Your task to perform on an android device: toggle wifi Image 0: 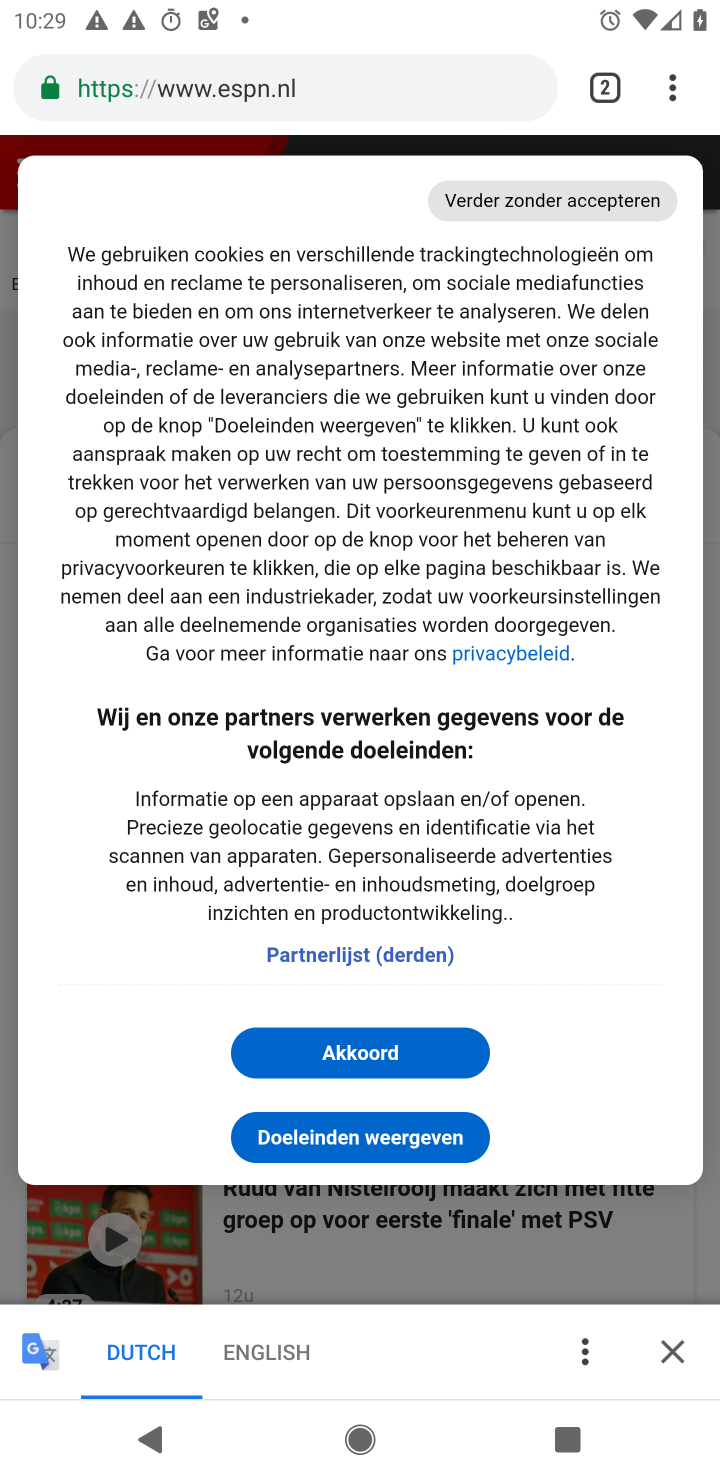
Step 0: press back button
Your task to perform on an android device: toggle wifi Image 1: 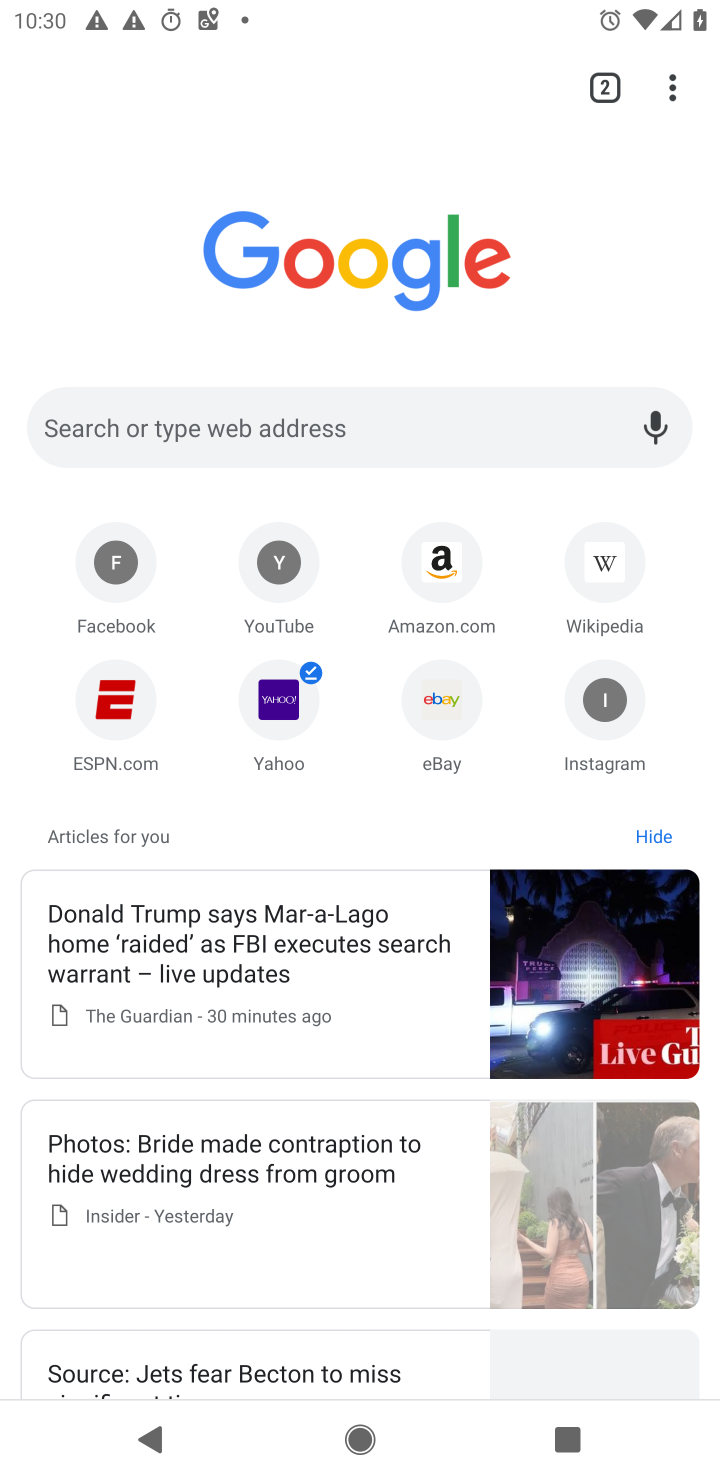
Step 1: press back button
Your task to perform on an android device: toggle wifi Image 2: 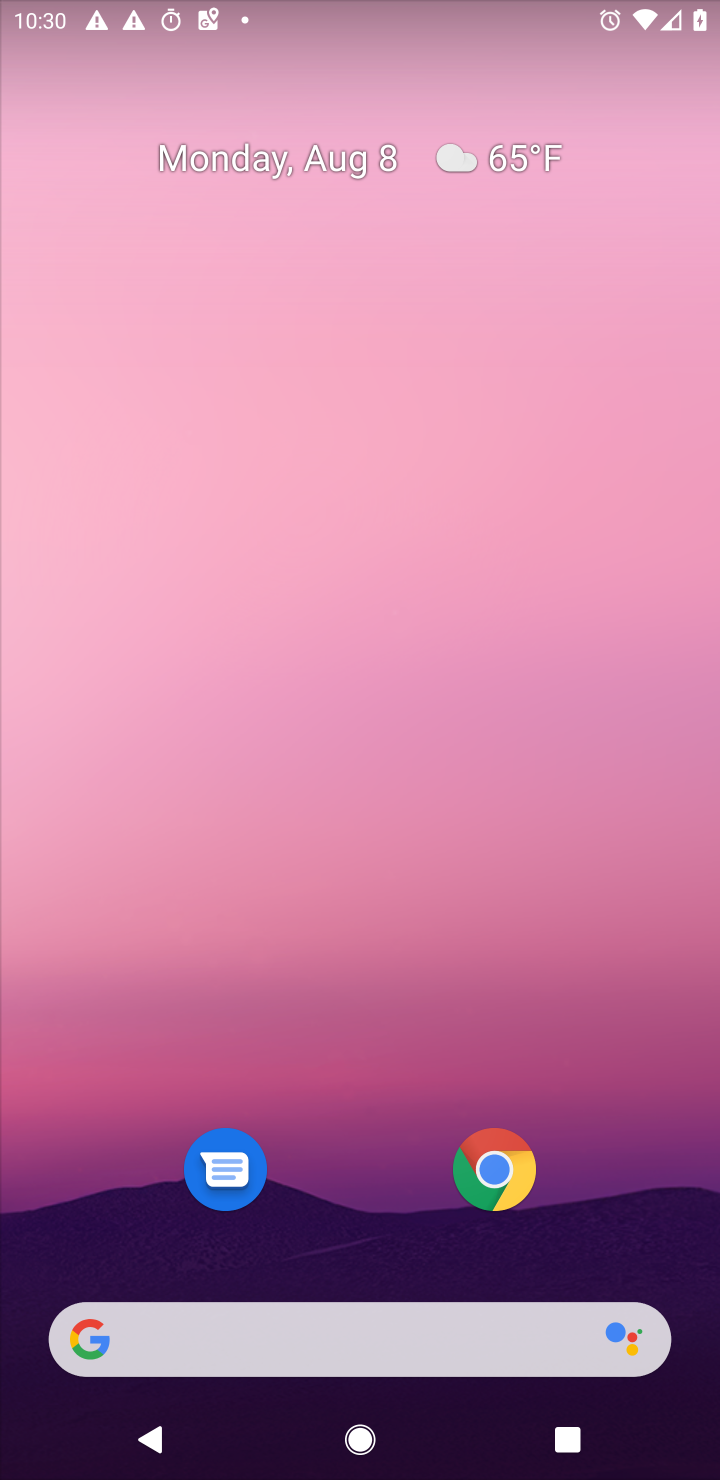
Step 2: drag from (154, 41) to (264, 1137)
Your task to perform on an android device: toggle wifi Image 3: 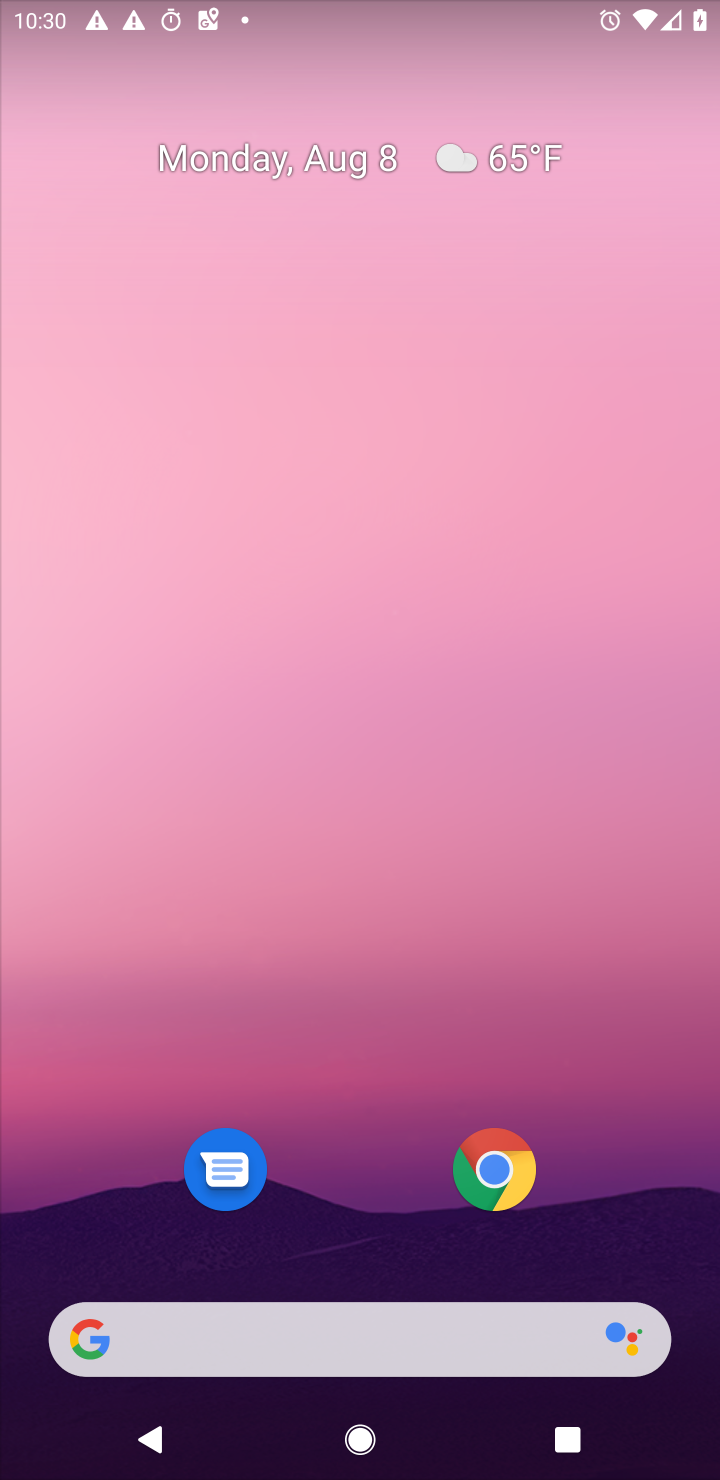
Step 3: drag from (127, 11) to (309, 1017)
Your task to perform on an android device: toggle wifi Image 4: 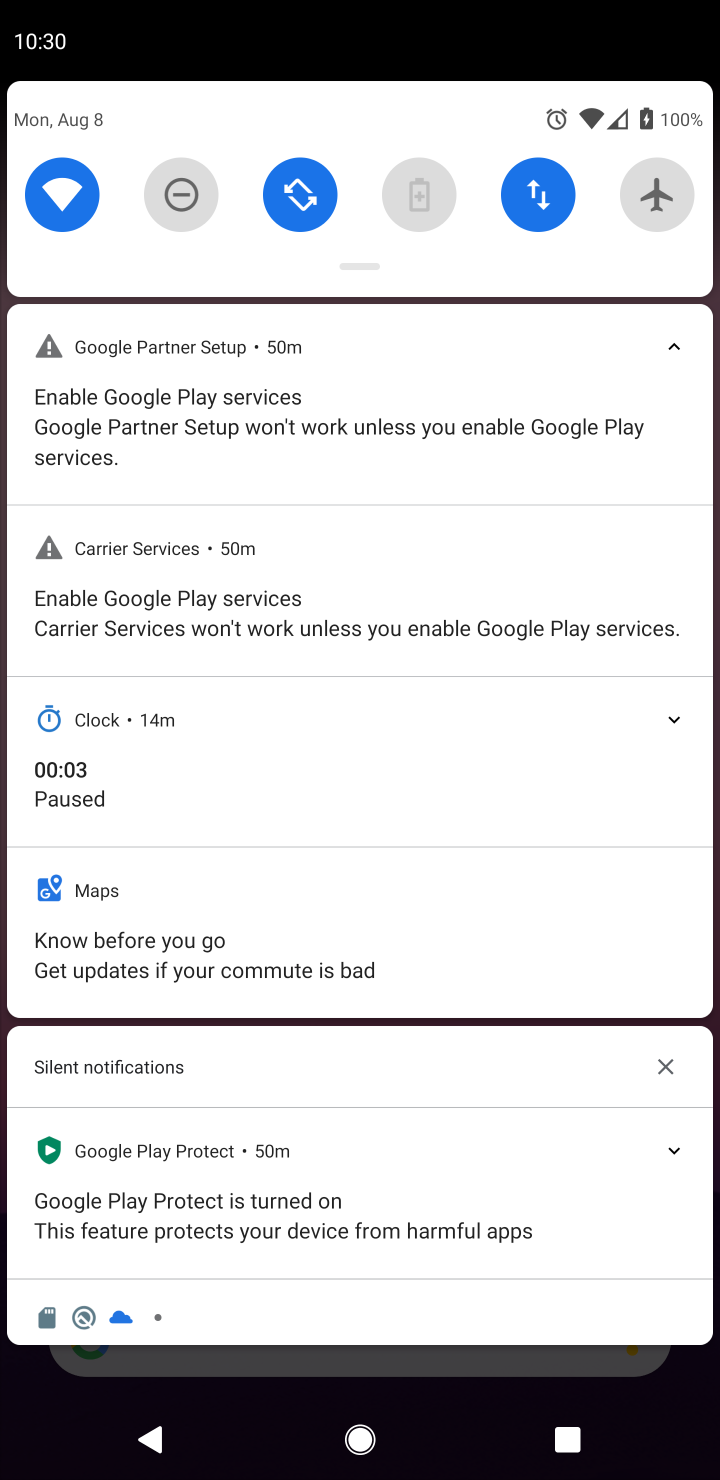
Step 4: click (69, 225)
Your task to perform on an android device: toggle wifi Image 5: 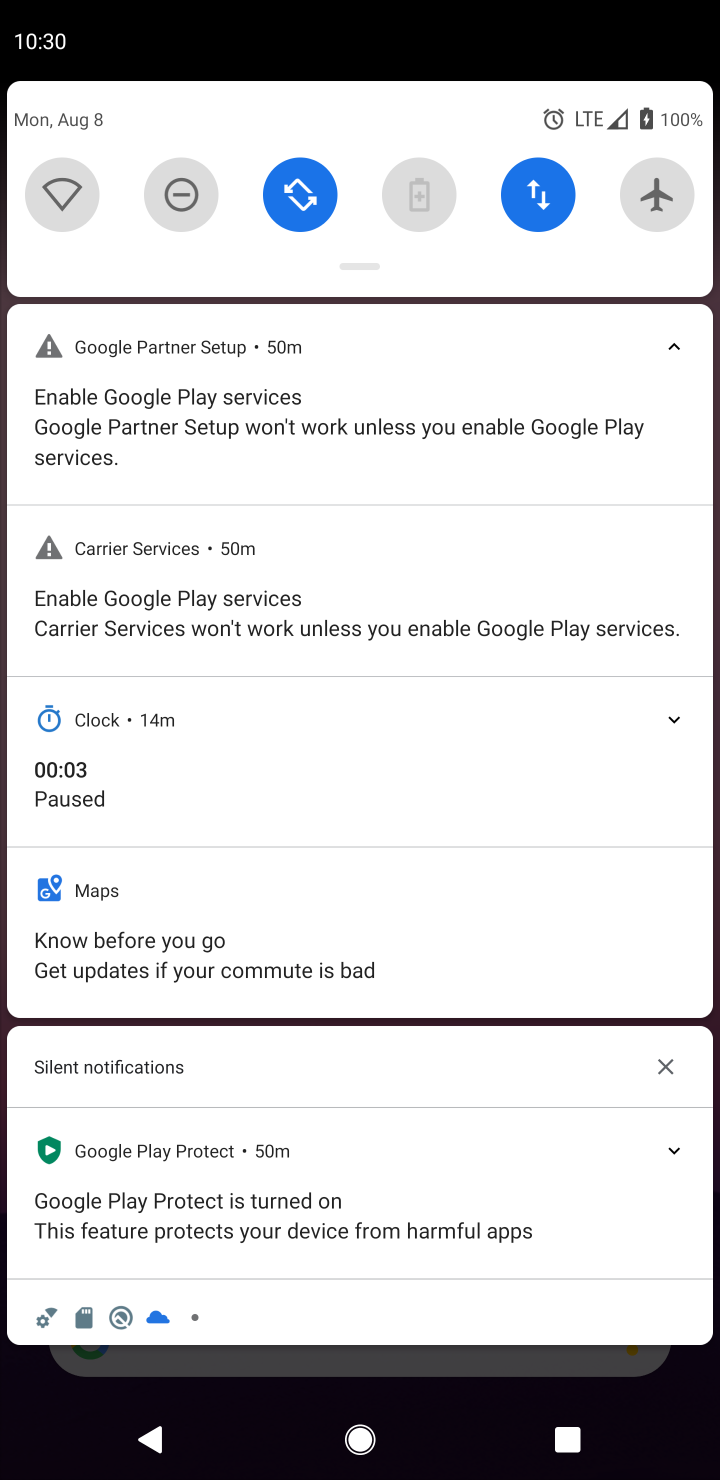
Step 5: task complete